Your task to perform on an android device: Search for usb-a to usb-b on newegg, select the first entry, add it to the cart, then select checkout. Image 0: 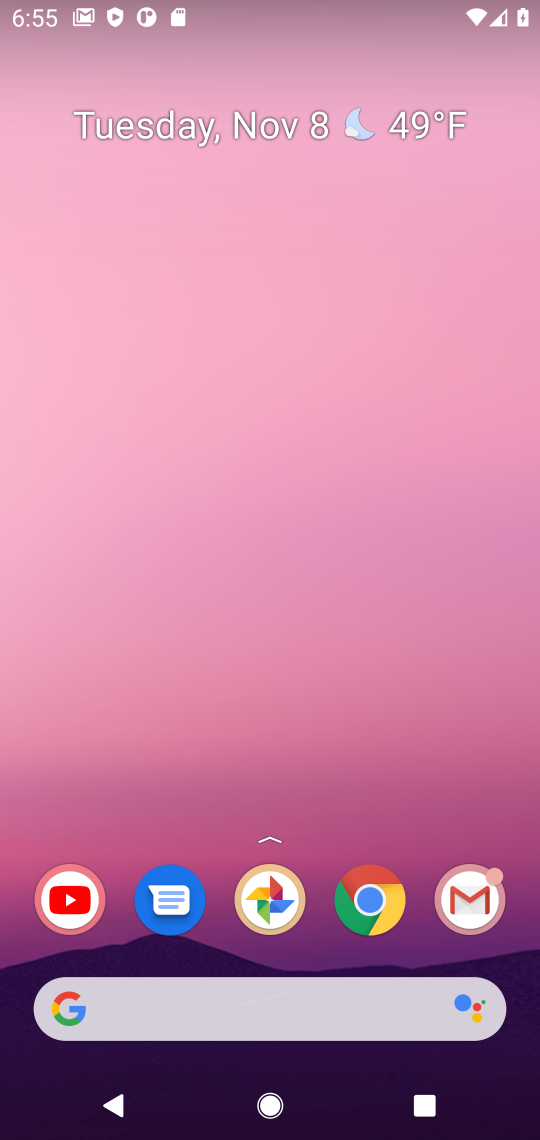
Step 0: click (375, 896)
Your task to perform on an android device: Search for usb-a to usb-b on newegg, select the first entry, add it to the cart, then select checkout. Image 1: 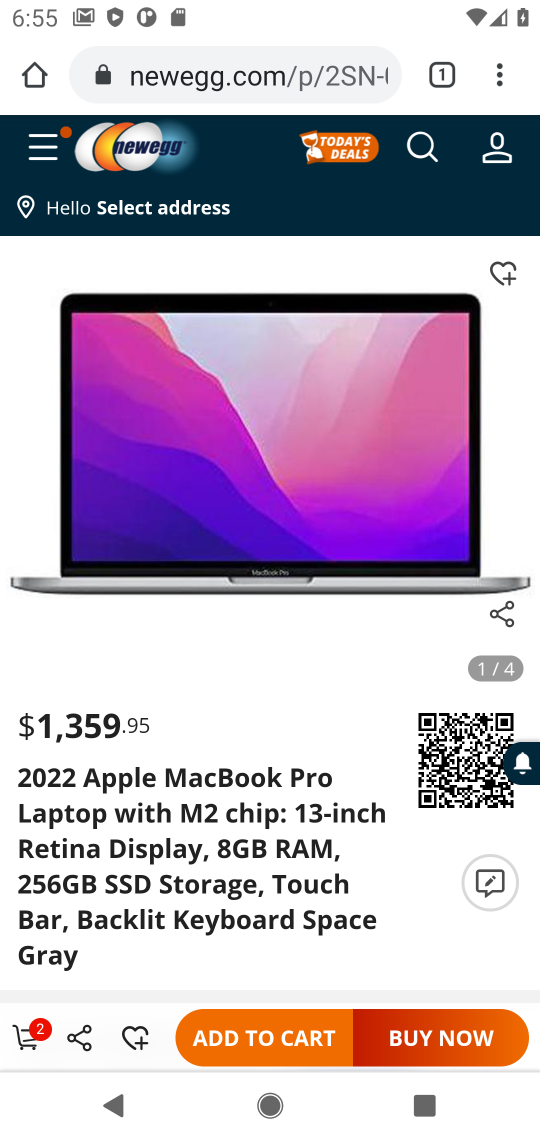
Step 1: click (274, 82)
Your task to perform on an android device: Search for usb-a to usb-b on newegg, select the first entry, add it to the cart, then select checkout. Image 2: 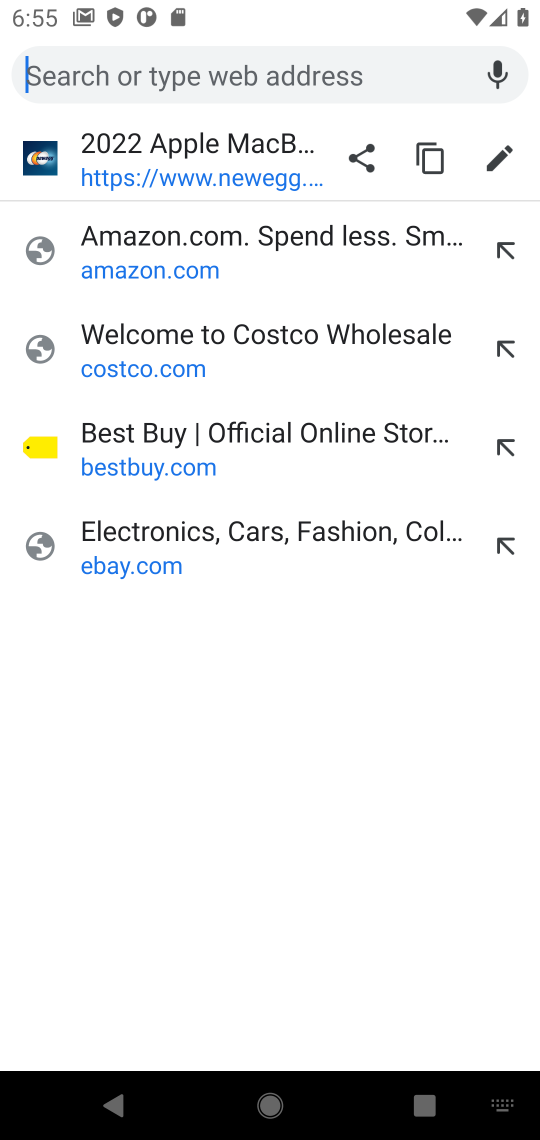
Step 2: type "newegg"
Your task to perform on an android device: Search for usb-a to usb-b on newegg, select the first entry, add it to the cart, then select checkout. Image 3: 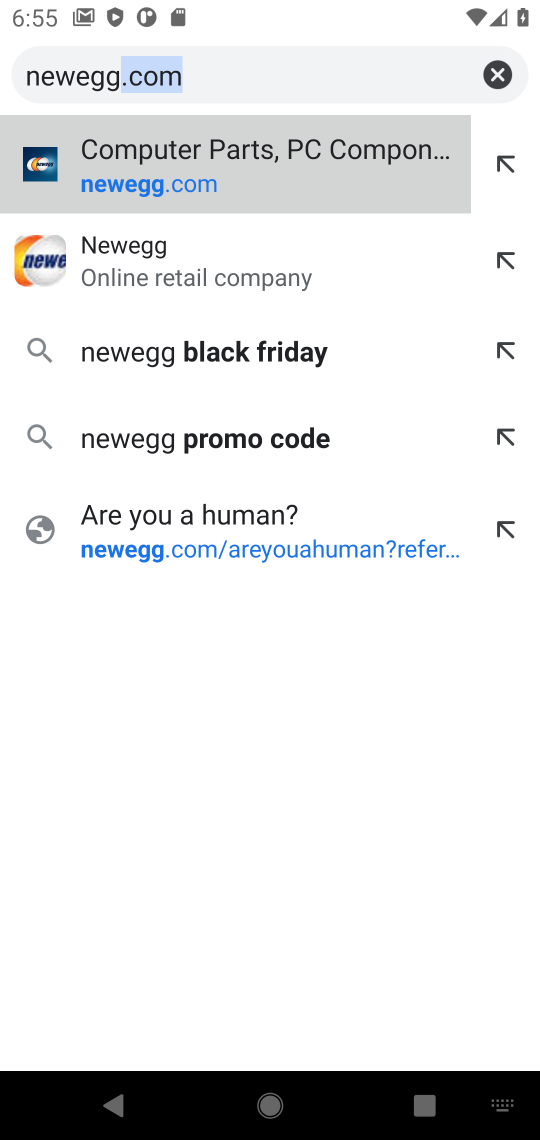
Step 3: press enter
Your task to perform on an android device: Search for usb-a to usb-b on newegg, select the first entry, add it to the cart, then select checkout. Image 4: 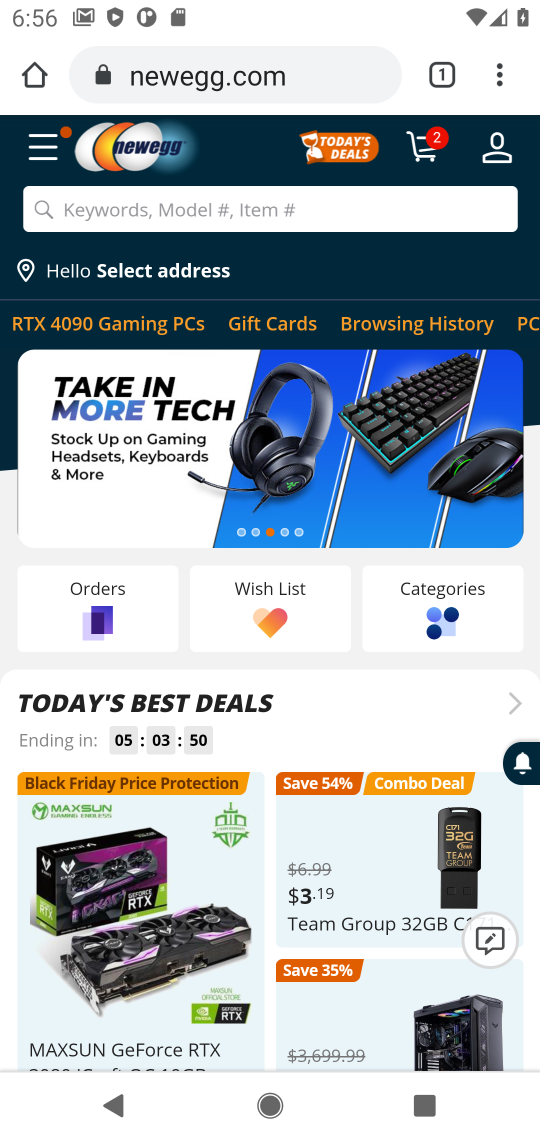
Step 4: click (304, 200)
Your task to perform on an android device: Search for usb-a to usb-b on newegg, select the first entry, add it to the cart, then select checkout. Image 5: 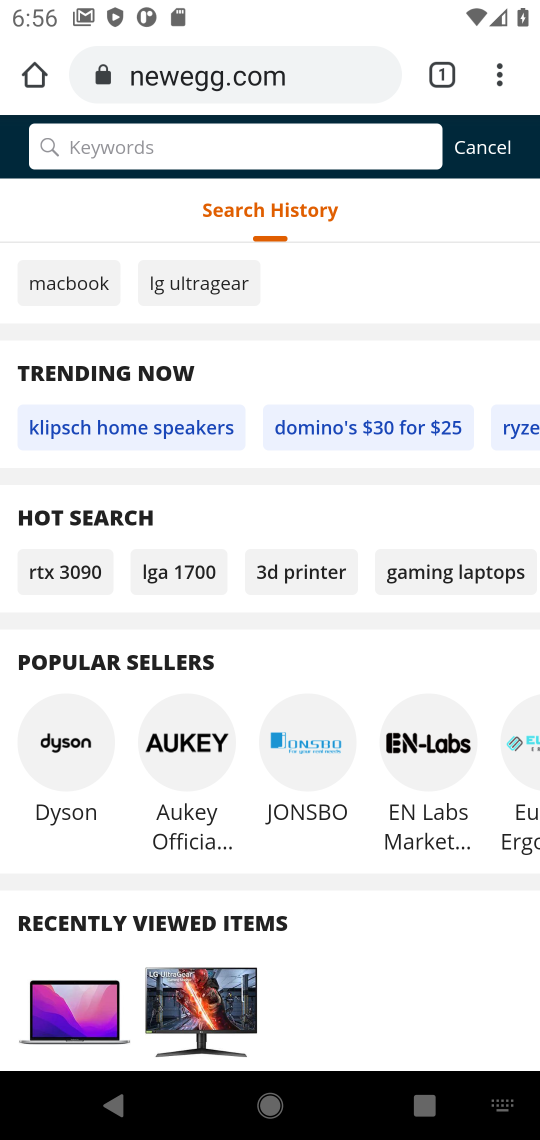
Step 5: type "usb-a to usb-b"
Your task to perform on an android device: Search for usb-a to usb-b on newegg, select the first entry, add it to the cart, then select checkout. Image 6: 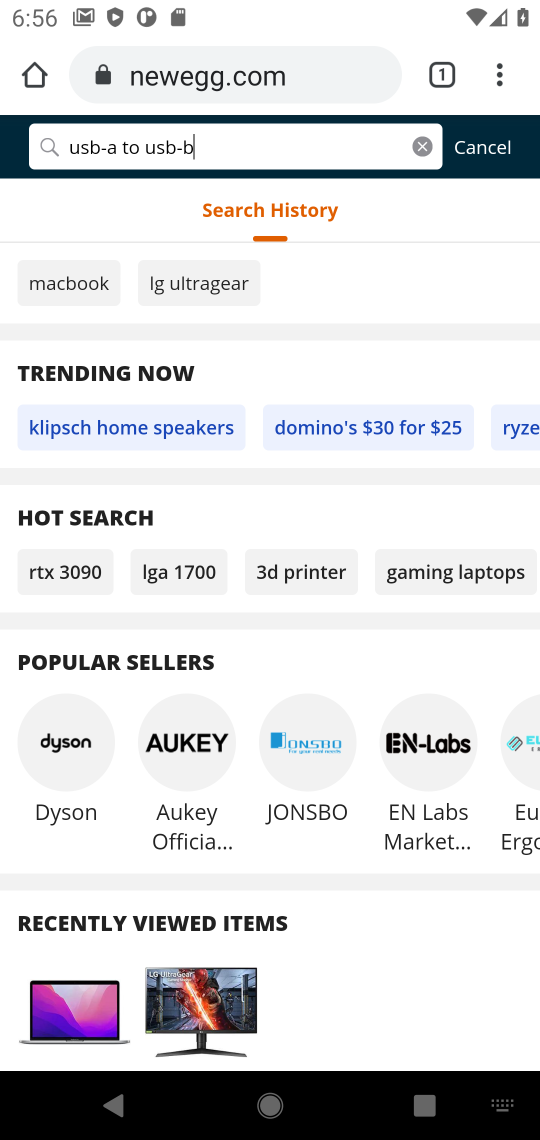
Step 6: type ""
Your task to perform on an android device: Search for usb-a to usb-b on newegg, select the first entry, add it to the cart, then select checkout. Image 7: 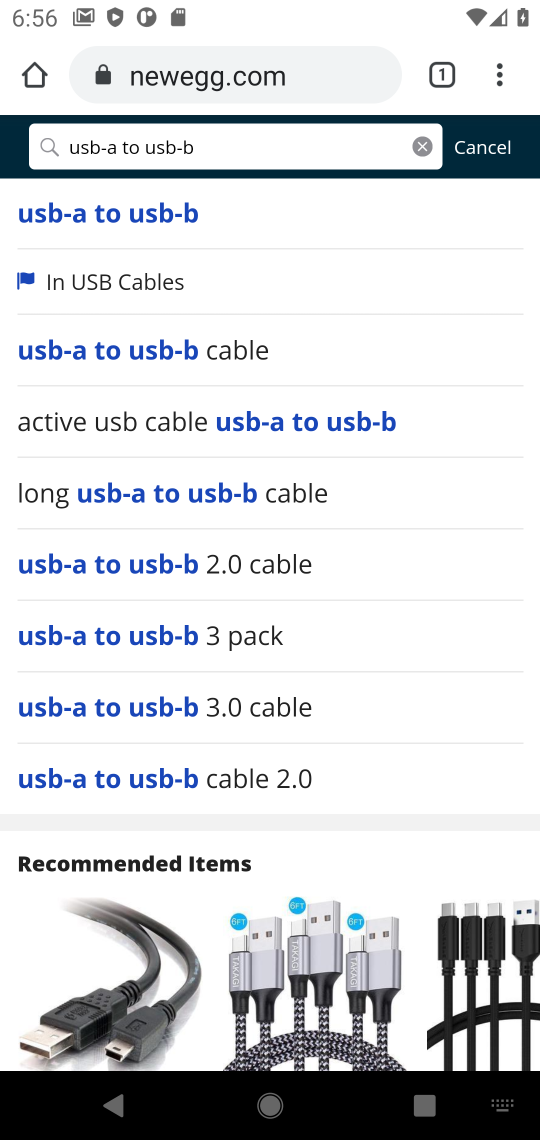
Step 7: press enter
Your task to perform on an android device: Search for usb-a to usb-b on newegg, select the first entry, add it to the cart, then select checkout. Image 8: 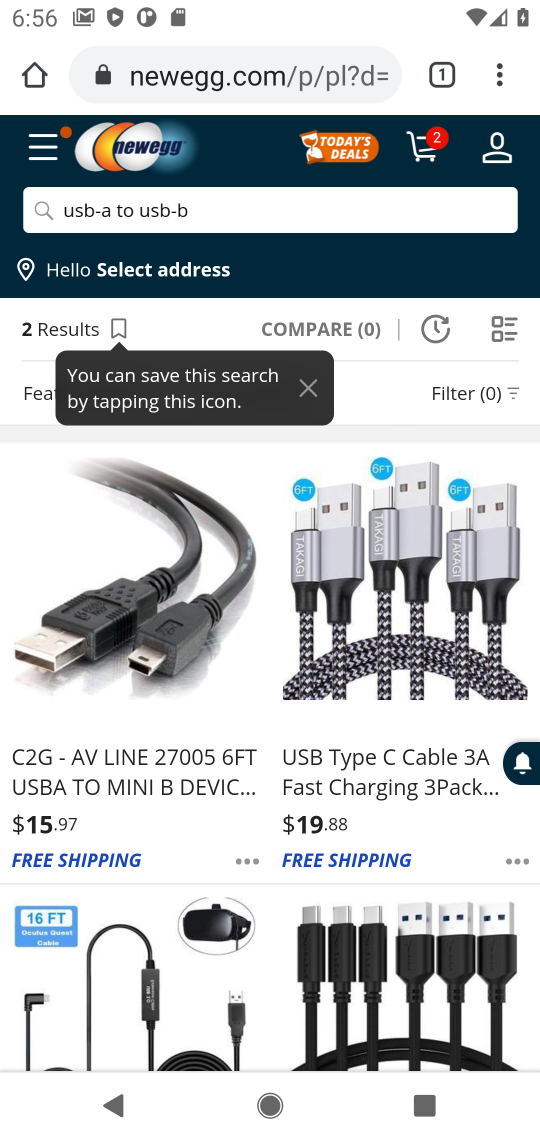
Step 8: click (135, 671)
Your task to perform on an android device: Search for usb-a to usb-b on newegg, select the first entry, add it to the cart, then select checkout. Image 9: 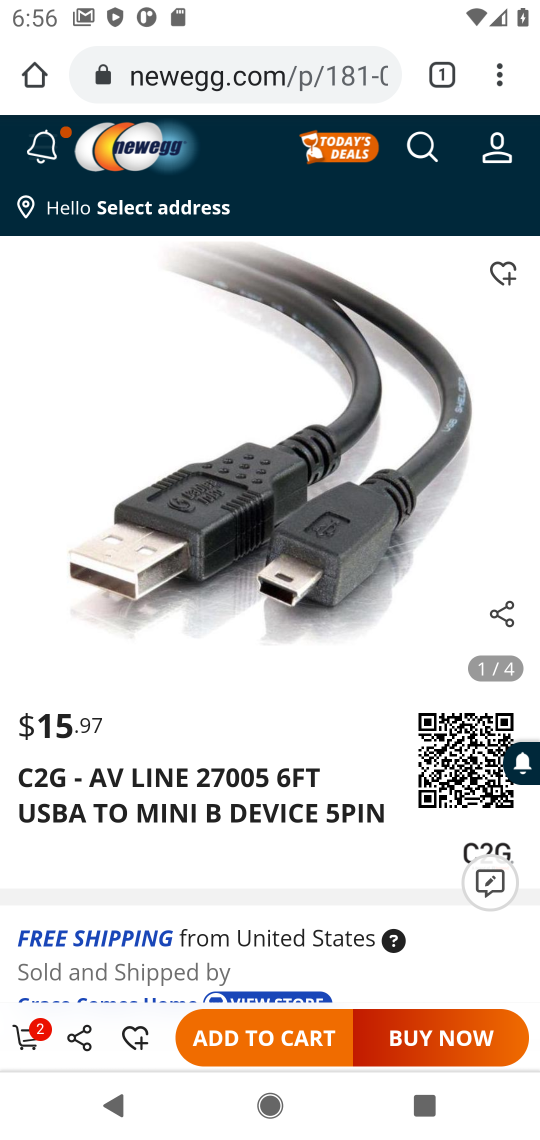
Step 9: click (299, 1037)
Your task to perform on an android device: Search for usb-a to usb-b on newegg, select the first entry, add it to the cart, then select checkout. Image 10: 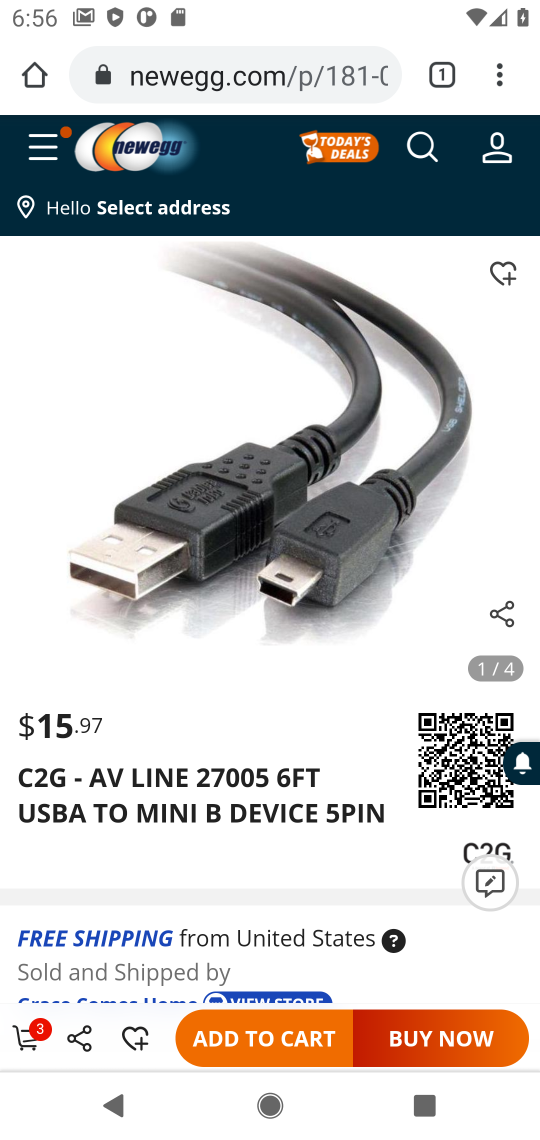
Step 10: click (26, 1045)
Your task to perform on an android device: Search for usb-a to usb-b on newegg, select the first entry, add it to the cart, then select checkout. Image 11: 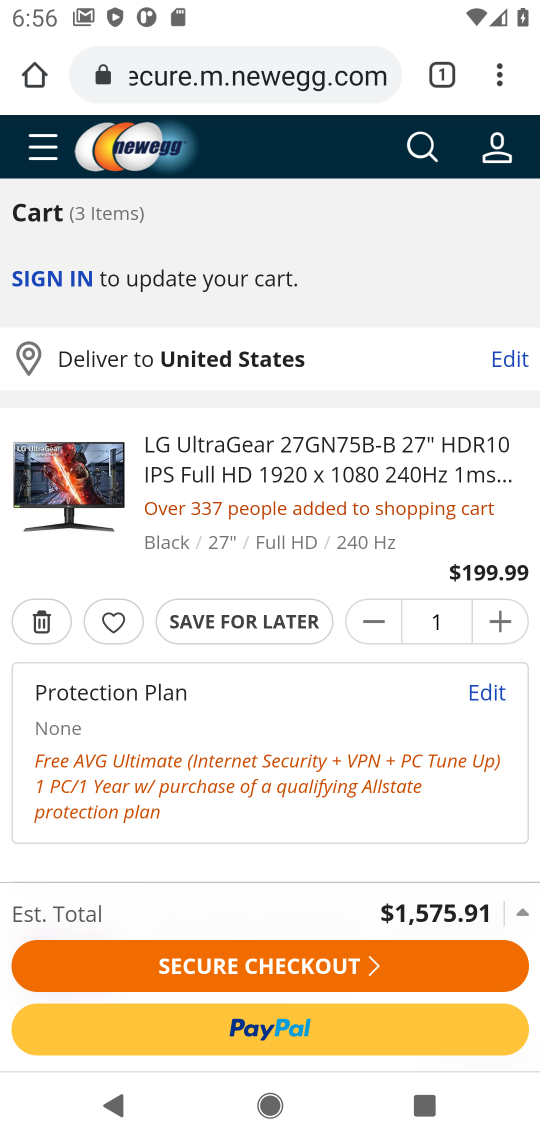
Step 11: click (362, 977)
Your task to perform on an android device: Search for usb-a to usb-b on newegg, select the first entry, add it to the cart, then select checkout. Image 12: 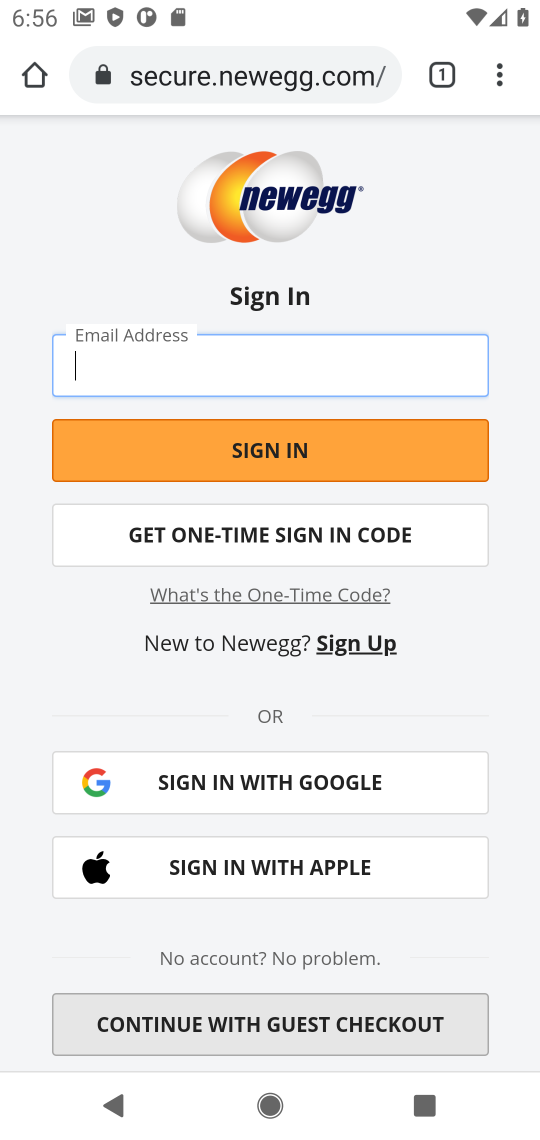
Step 12: task complete